Your task to perform on an android device: turn off location Image 0: 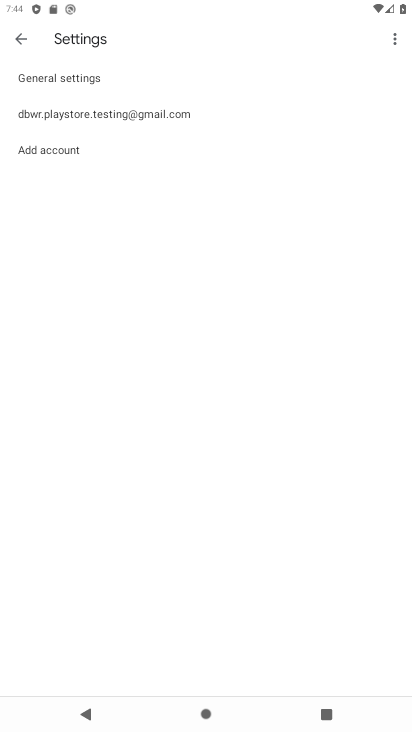
Step 0: press home button
Your task to perform on an android device: turn off location Image 1: 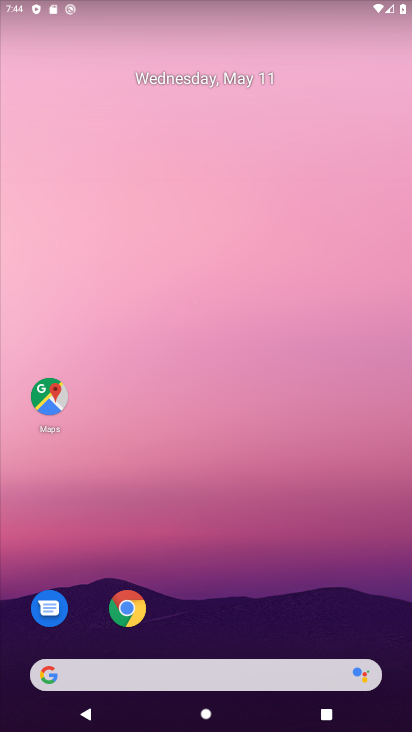
Step 1: click (202, 77)
Your task to perform on an android device: turn off location Image 2: 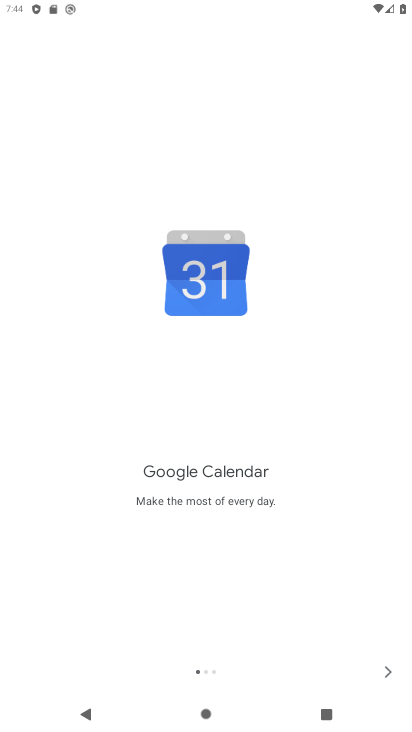
Step 2: click (382, 670)
Your task to perform on an android device: turn off location Image 3: 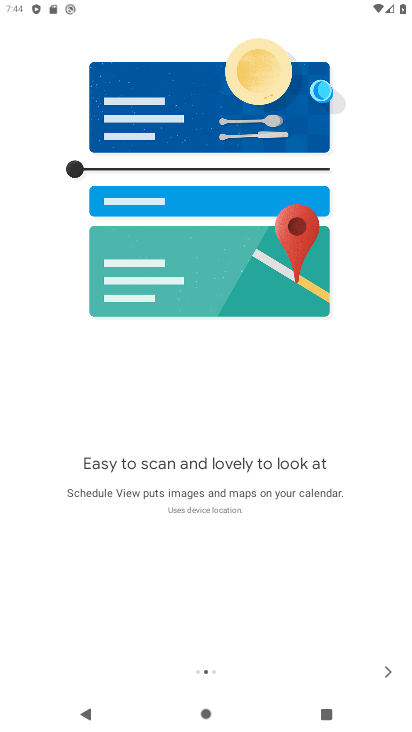
Step 3: click (384, 670)
Your task to perform on an android device: turn off location Image 4: 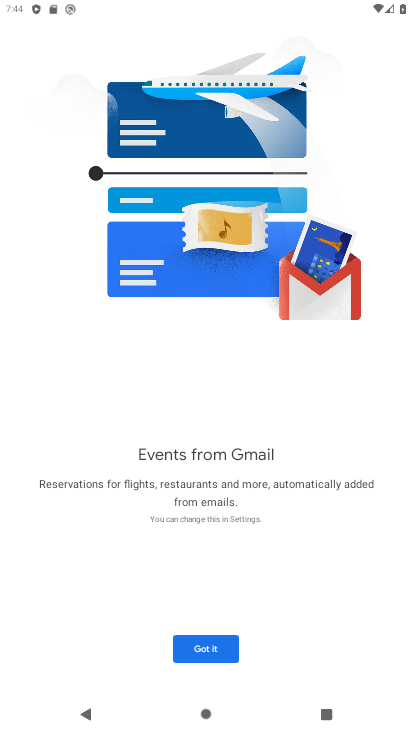
Step 4: click (206, 644)
Your task to perform on an android device: turn off location Image 5: 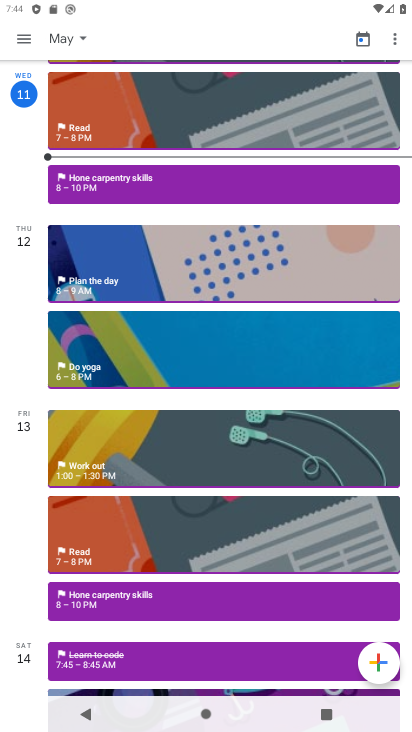
Step 5: press home button
Your task to perform on an android device: turn off location Image 6: 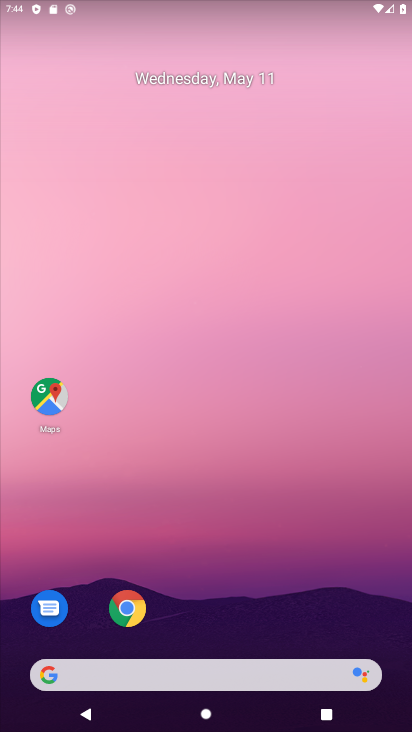
Step 6: drag from (289, 539) to (197, 88)
Your task to perform on an android device: turn off location Image 7: 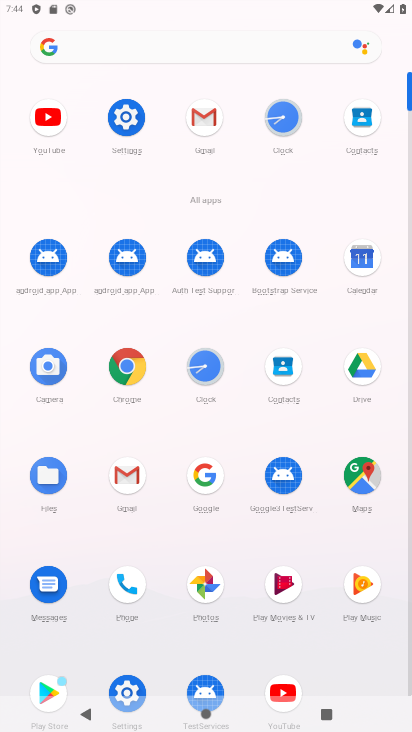
Step 7: click (122, 122)
Your task to perform on an android device: turn off location Image 8: 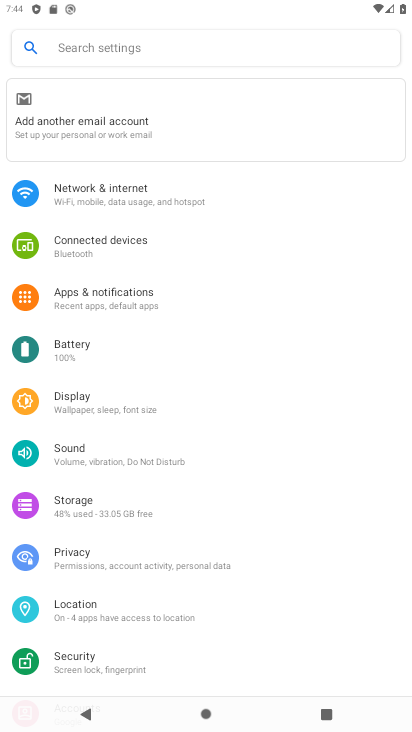
Step 8: click (141, 597)
Your task to perform on an android device: turn off location Image 9: 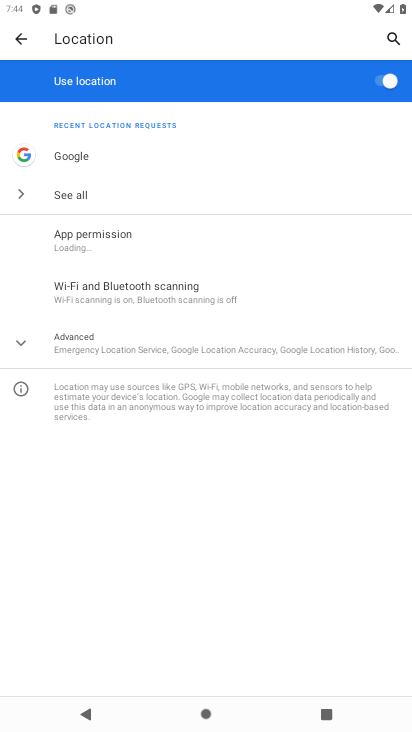
Step 9: click (383, 78)
Your task to perform on an android device: turn off location Image 10: 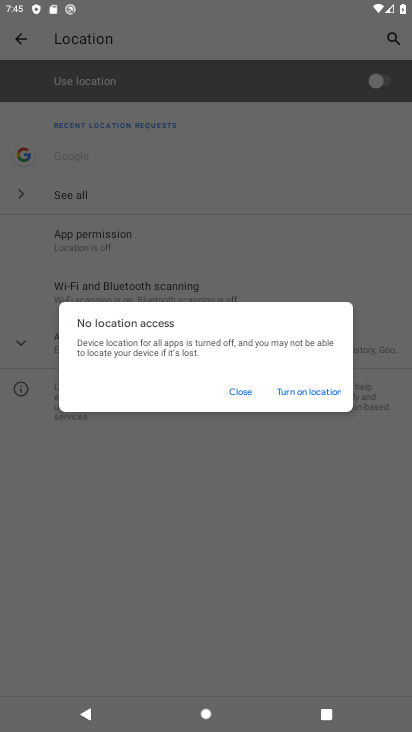
Step 10: task complete